Your task to perform on an android device: Open Google Image 0: 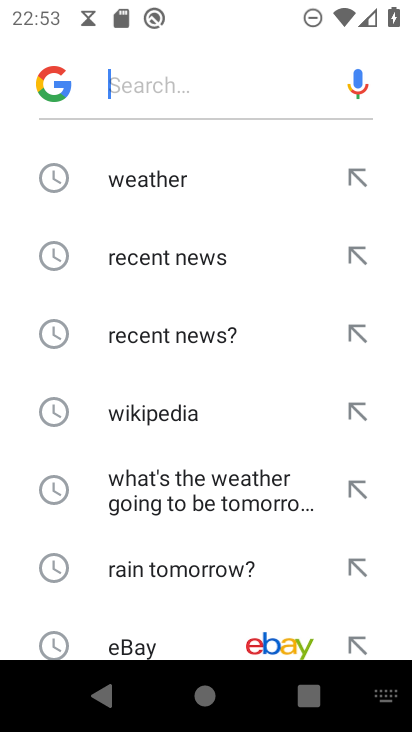
Step 0: press home button
Your task to perform on an android device: Open Google Image 1: 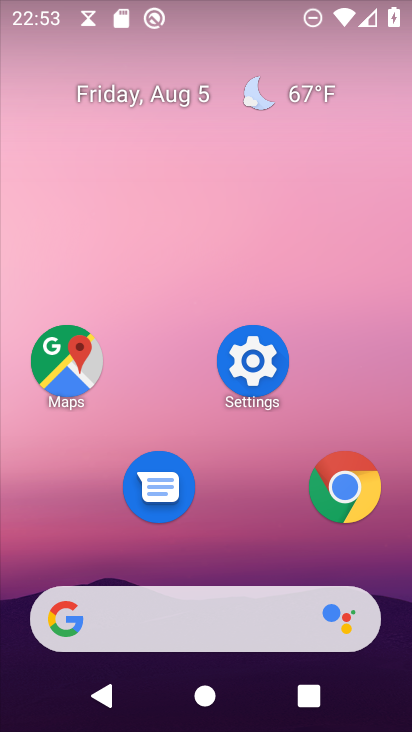
Step 1: click (69, 618)
Your task to perform on an android device: Open Google Image 2: 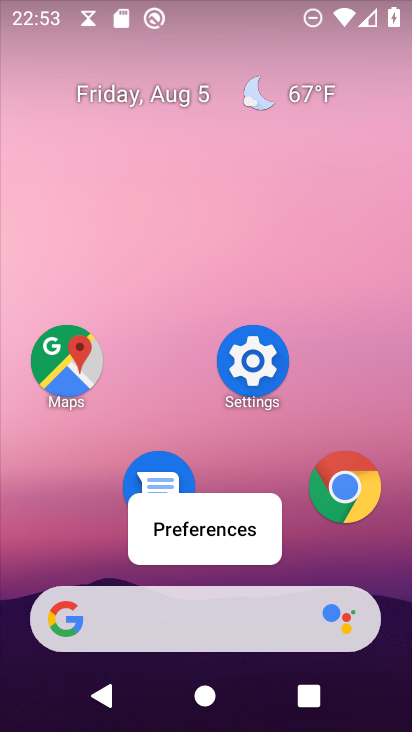
Step 2: click (69, 618)
Your task to perform on an android device: Open Google Image 3: 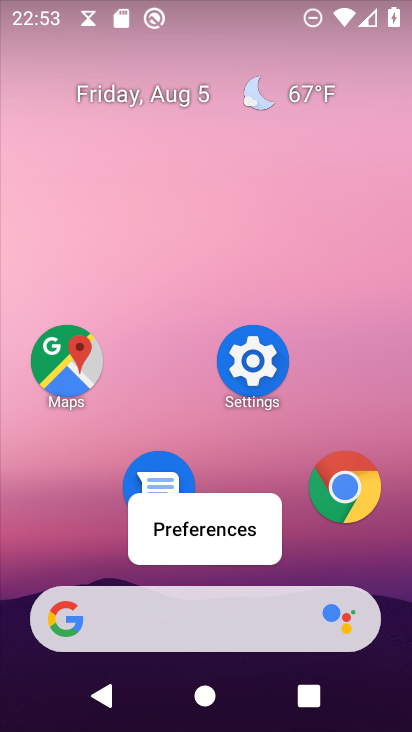
Step 3: click (71, 616)
Your task to perform on an android device: Open Google Image 4: 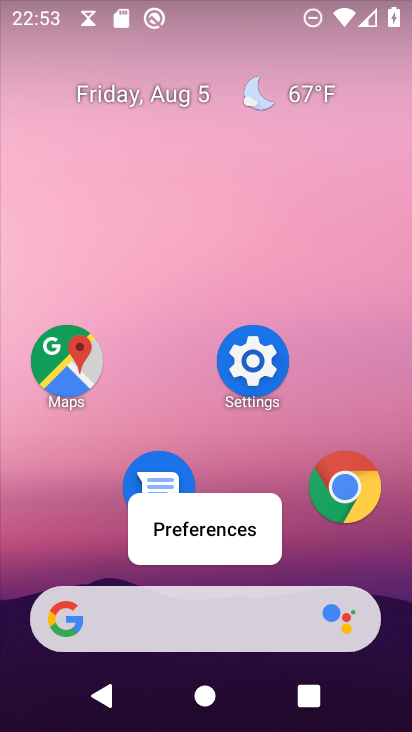
Step 4: click (70, 621)
Your task to perform on an android device: Open Google Image 5: 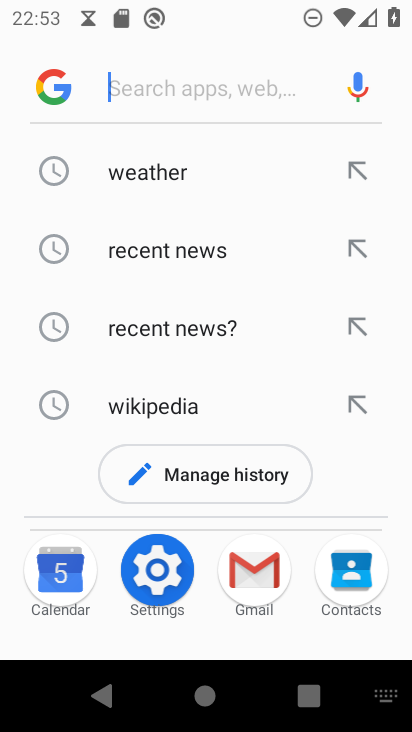
Step 5: task complete